Your task to perform on an android device: Open sound settings Image 0: 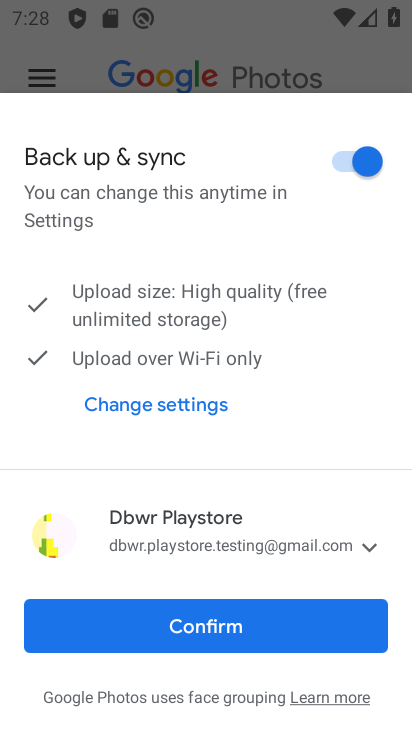
Step 0: press home button
Your task to perform on an android device: Open sound settings Image 1: 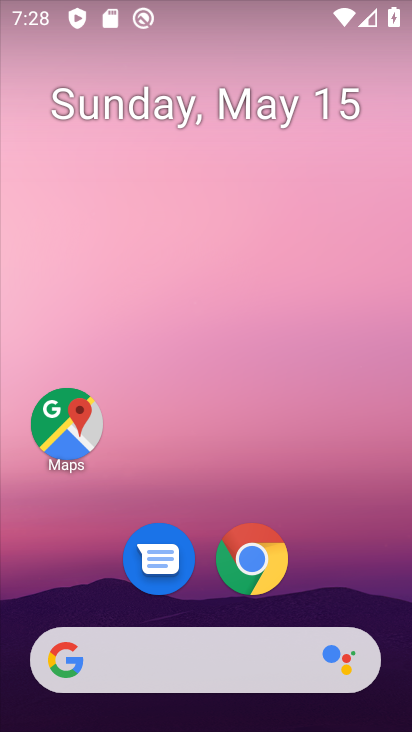
Step 1: drag from (315, 589) to (328, 10)
Your task to perform on an android device: Open sound settings Image 2: 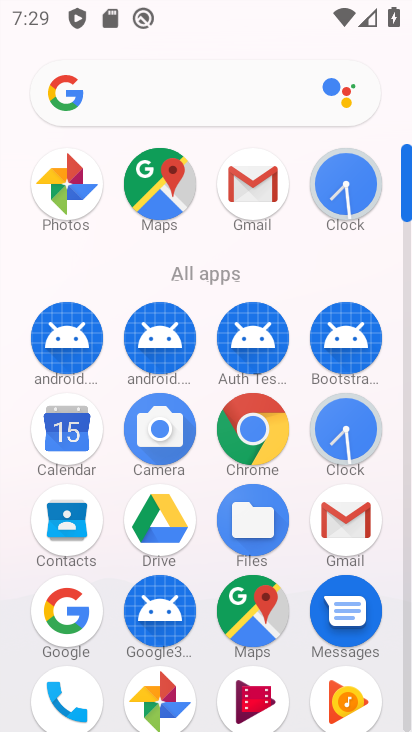
Step 2: drag from (261, 595) to (303, 270)
Your task to perform on an android device: Open sound settings Image 3: 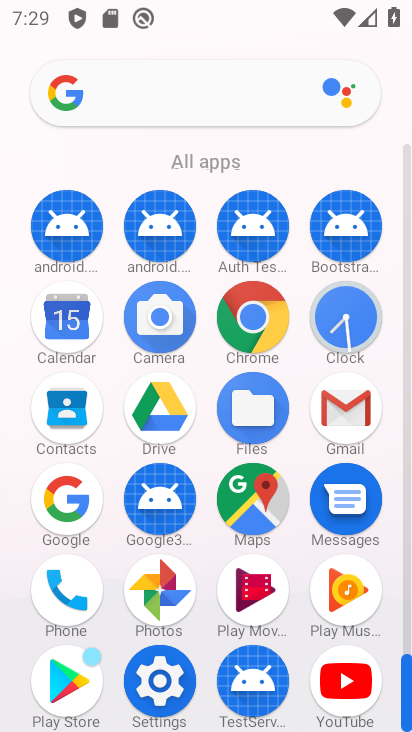
Step 3: click (180, 678)
Your task to perform on an android device: Open sound settings Image 4: 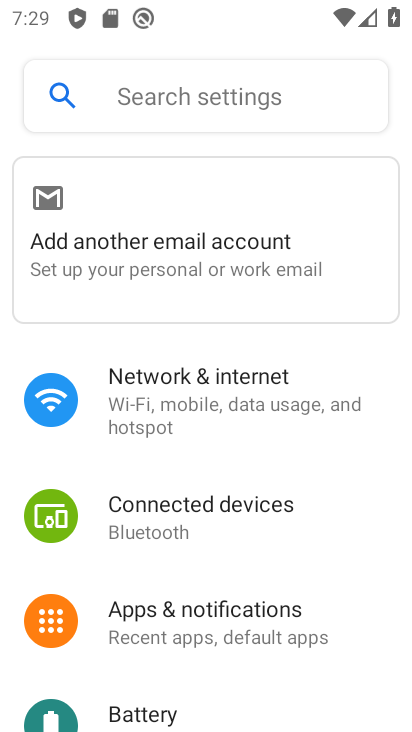
Step 4: drag from (227, 669) to (287, 239)
Your task to perform on an android device: Open sound settings Image 5: 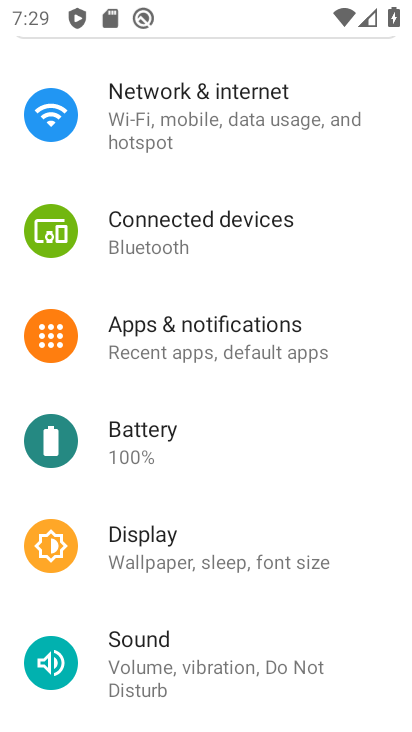
Step 5: click (274, 639)
Your task to perform on an android device: Open sound settings Image 6: 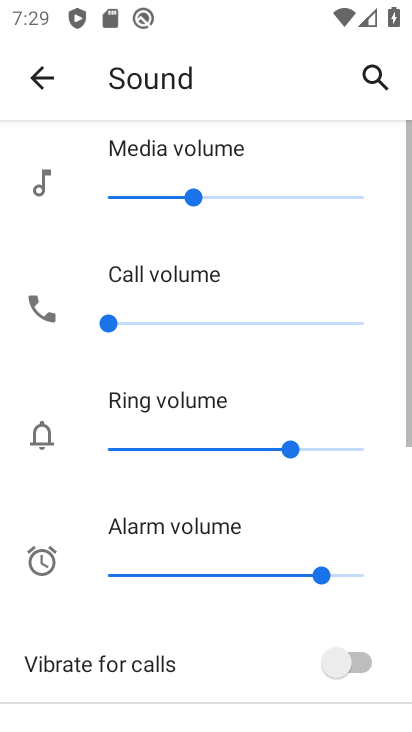
Step 6: task complete